Your task to perform on an android device: Go to Yahoo.com Image 0: 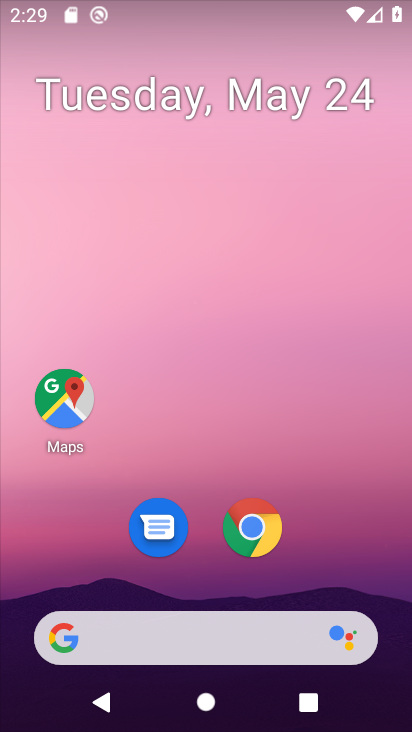
Step 0: click (261, 528)
Your task to perform on an android device: Go to Yahoo.com Image 1: 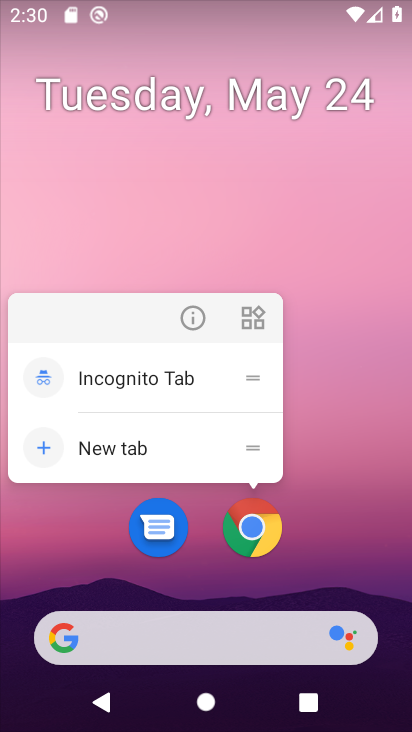
Step 1: click (252, 534)
Your task to perform on an android device: Go to Yahoo.com Image 2: 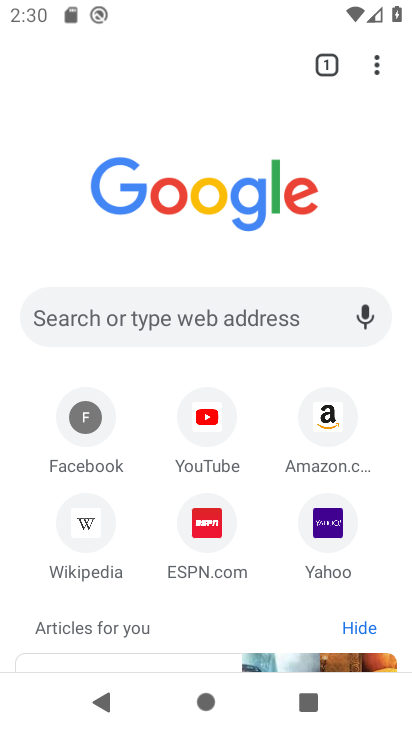
Step 2: click (326, 535)
Your task to perform on an android device: Go to Yahoo.com Image 3: 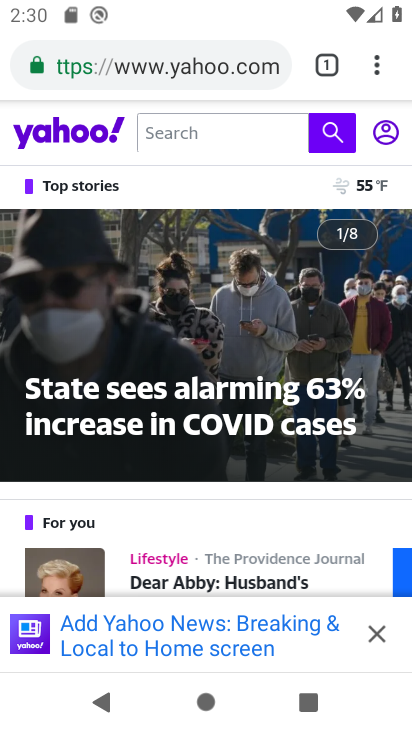
Step 3: task complete